Your task to perform on an android device: Open Google Maps Image 0: 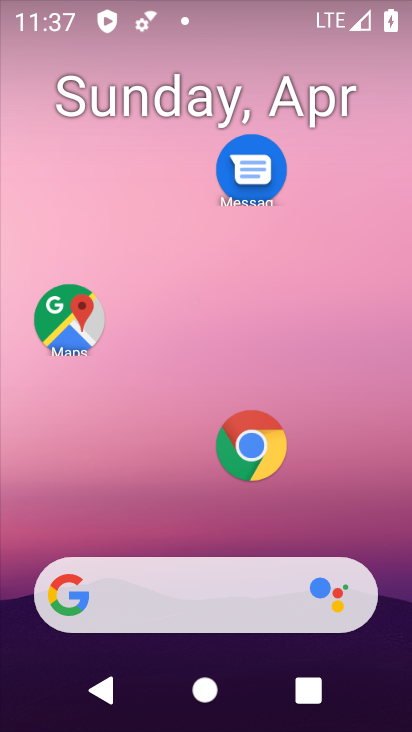
Step 0: drag from (166, 549) to (347, 35)
Your task to perform on an android device: Open Google Maps Image 1: 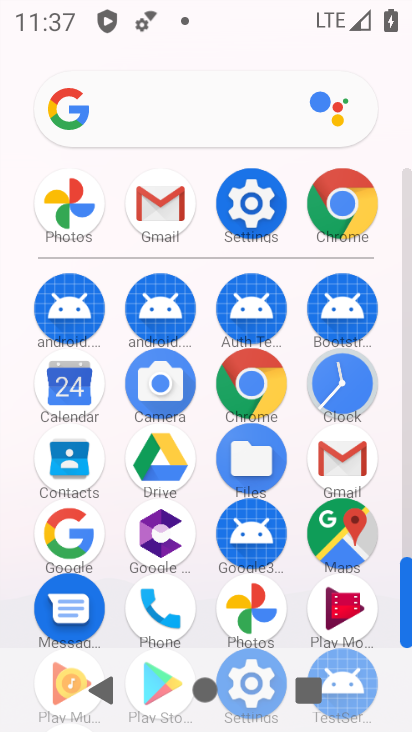
Step 1: click (330, 554)
Your task to perform on an android device: Open Google Maps Image 2: 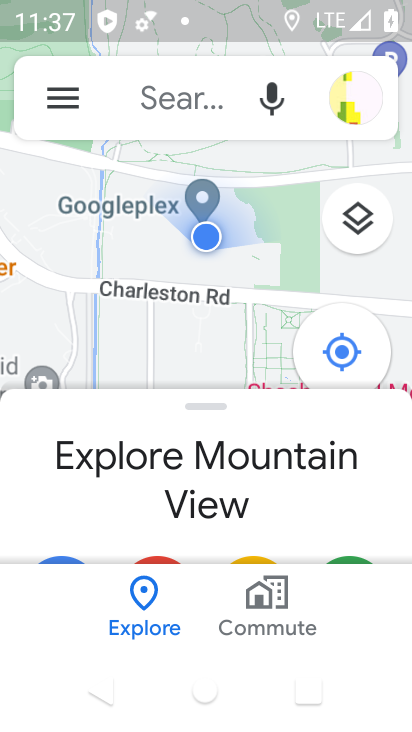
Step 2: task complete